Your task to perform on an android device: turn pop-ups on in chrome Image 0: 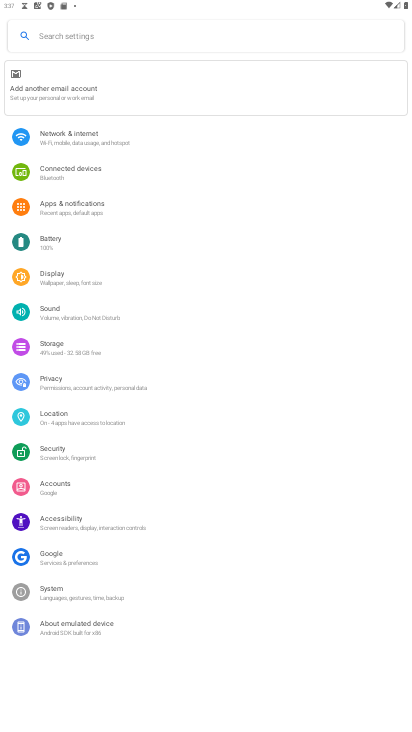
Step 0: press home button
Your task to perform on an android device: turn pop-ups on in chrome Image 1: 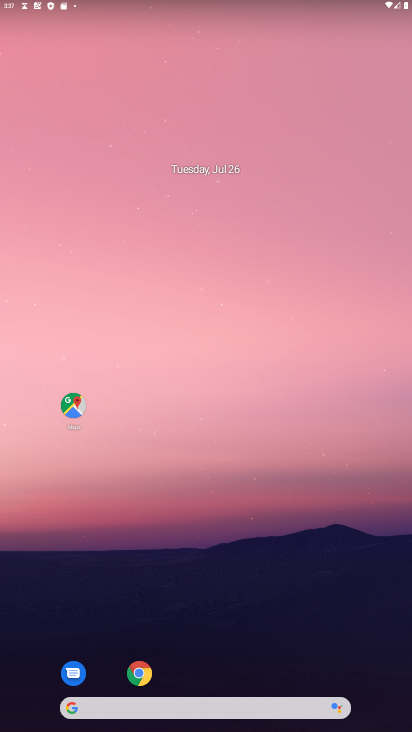
Step 1: click (139, 673)
Your task to perform on an android device: turn pop-ups on in chrome Image 2: 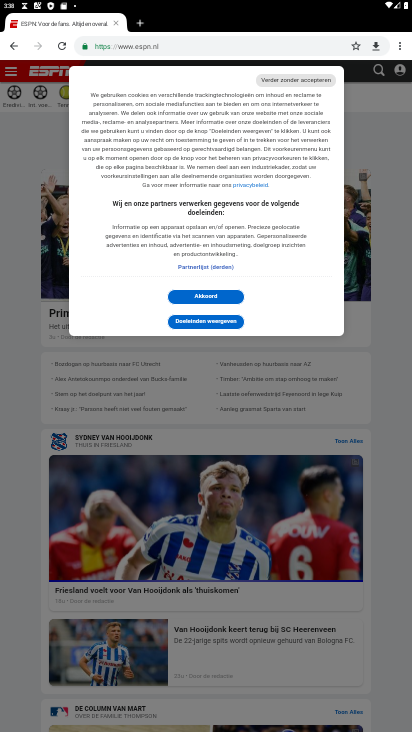
Step 2: click (400, 46)
Your task to perform on an android device: turn pop-ups on in chrome Image 3: 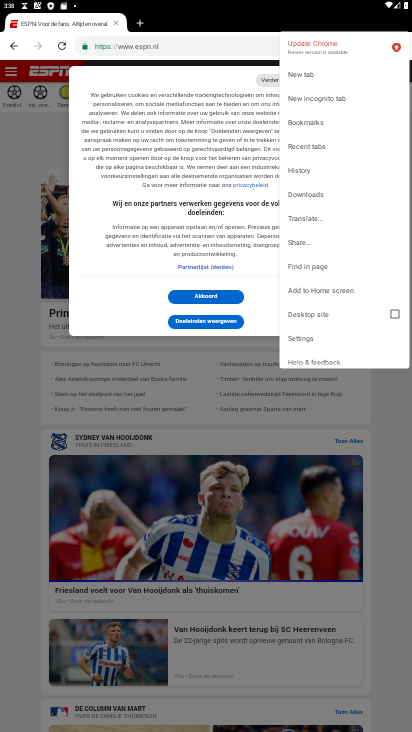
Step 3: click (305, 338)
Your task to perform on an android device: turn pop-ups on in chrome Image 4: 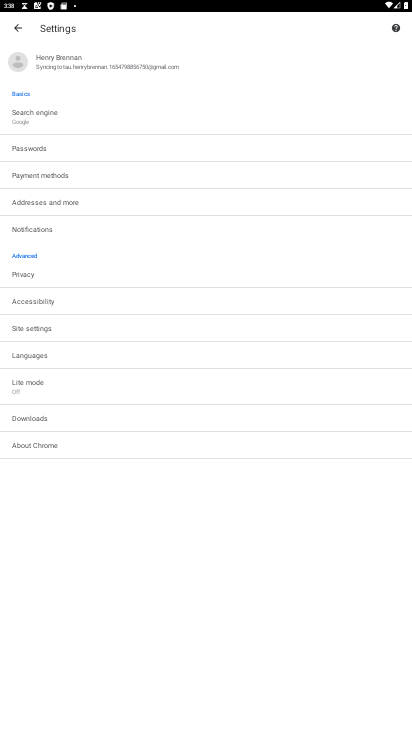
Step 4: click (30, 331)
Your task to perform on an android device: turn pop-ups on in chrome Image 5: 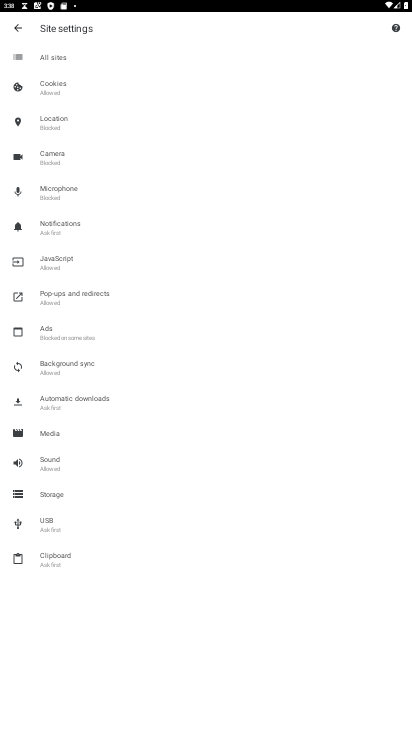
Step 5: click (62, 293)
Your task to perform on an android device: turn pop-ups on in chrome Image 6: 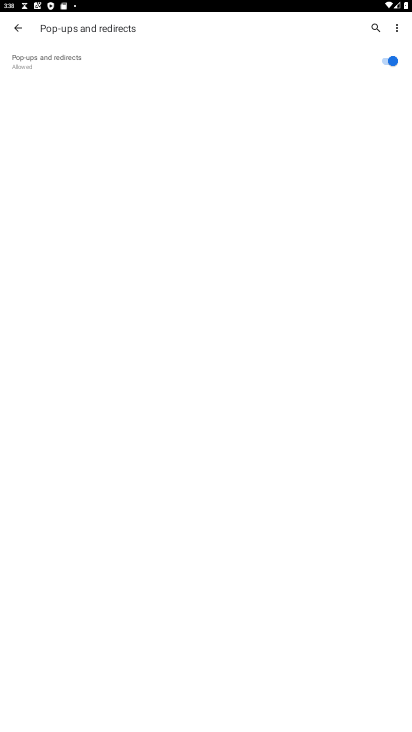
Step 6: task complete